Your task to perform on an android device: Go to Wikipedia Image 0: 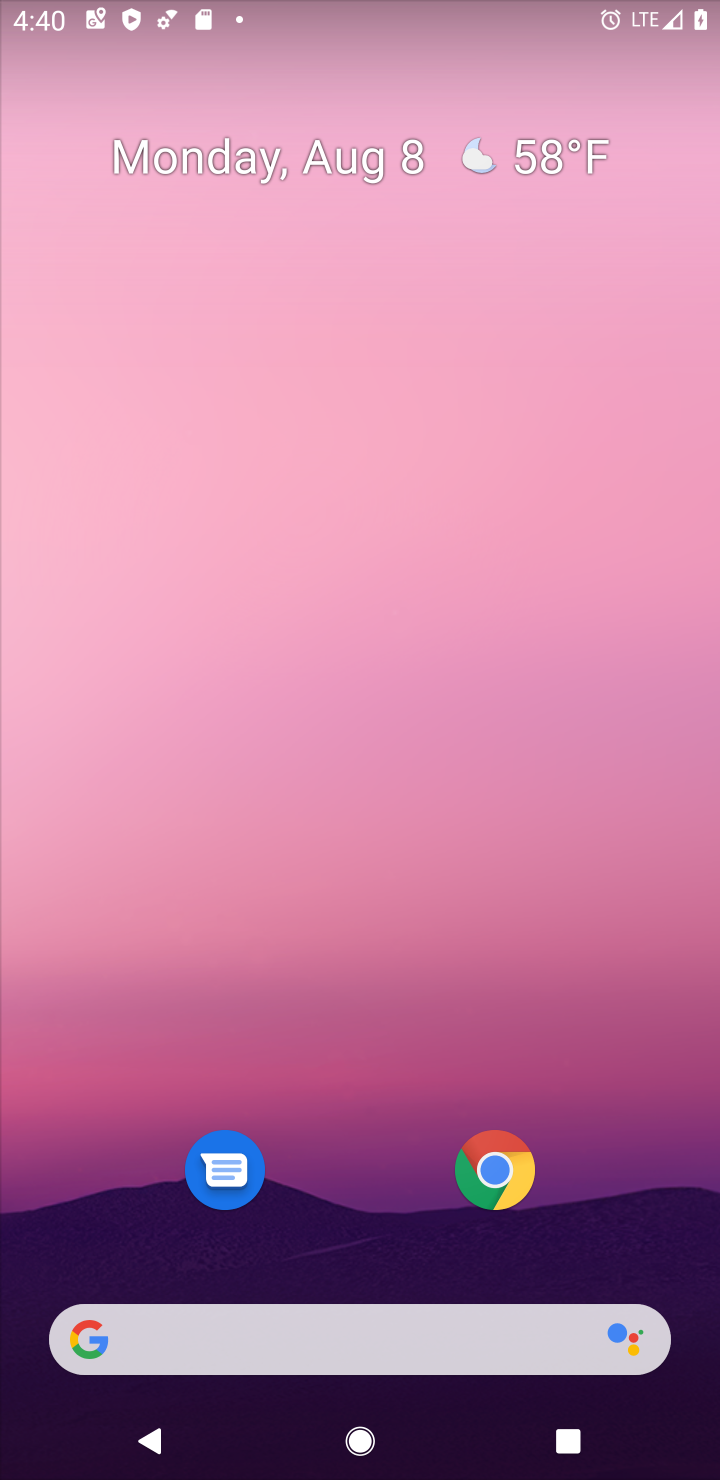
Step 0: click (481, 1220)
Your task to perform on an android device: Go to Wikipedia Image 1: 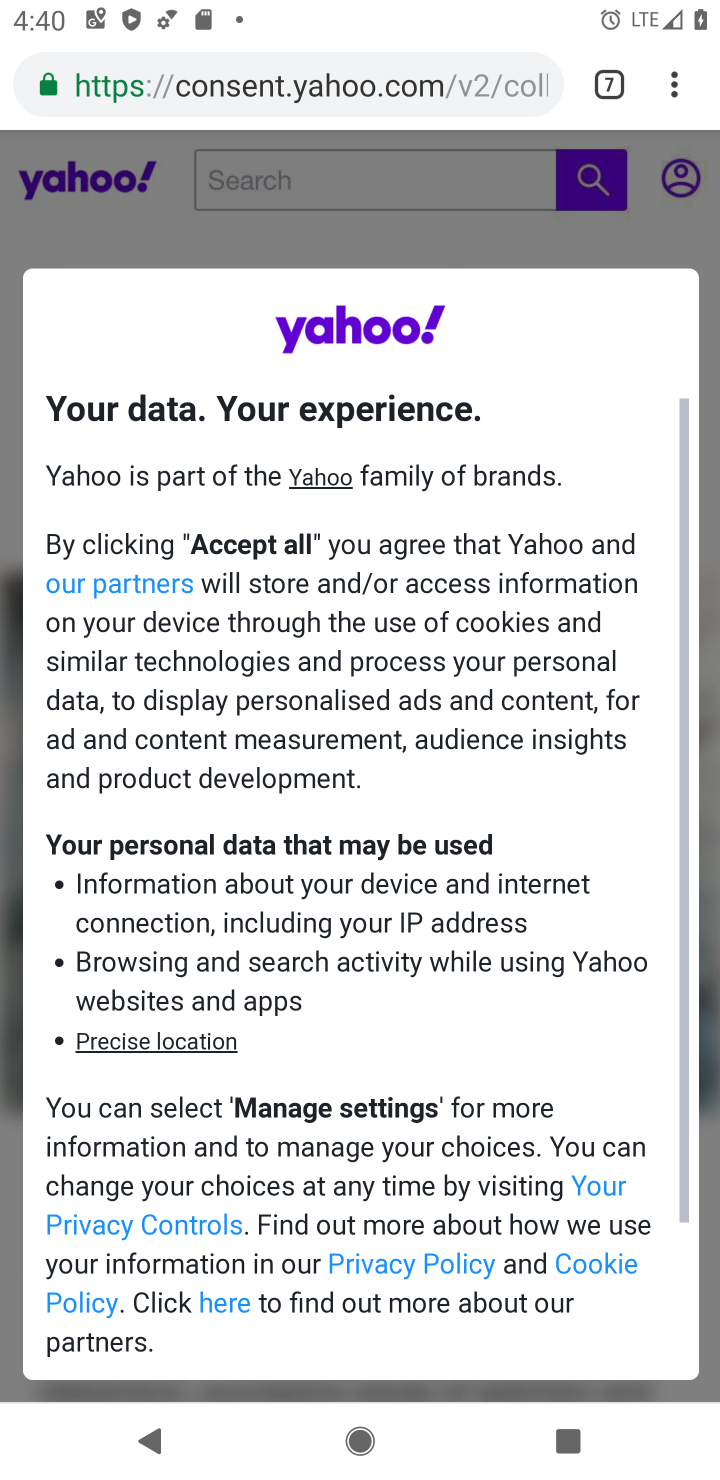
Step 1: click (608, 94)
Your task to perform on an android device: Go to Wikipedia Image 2: 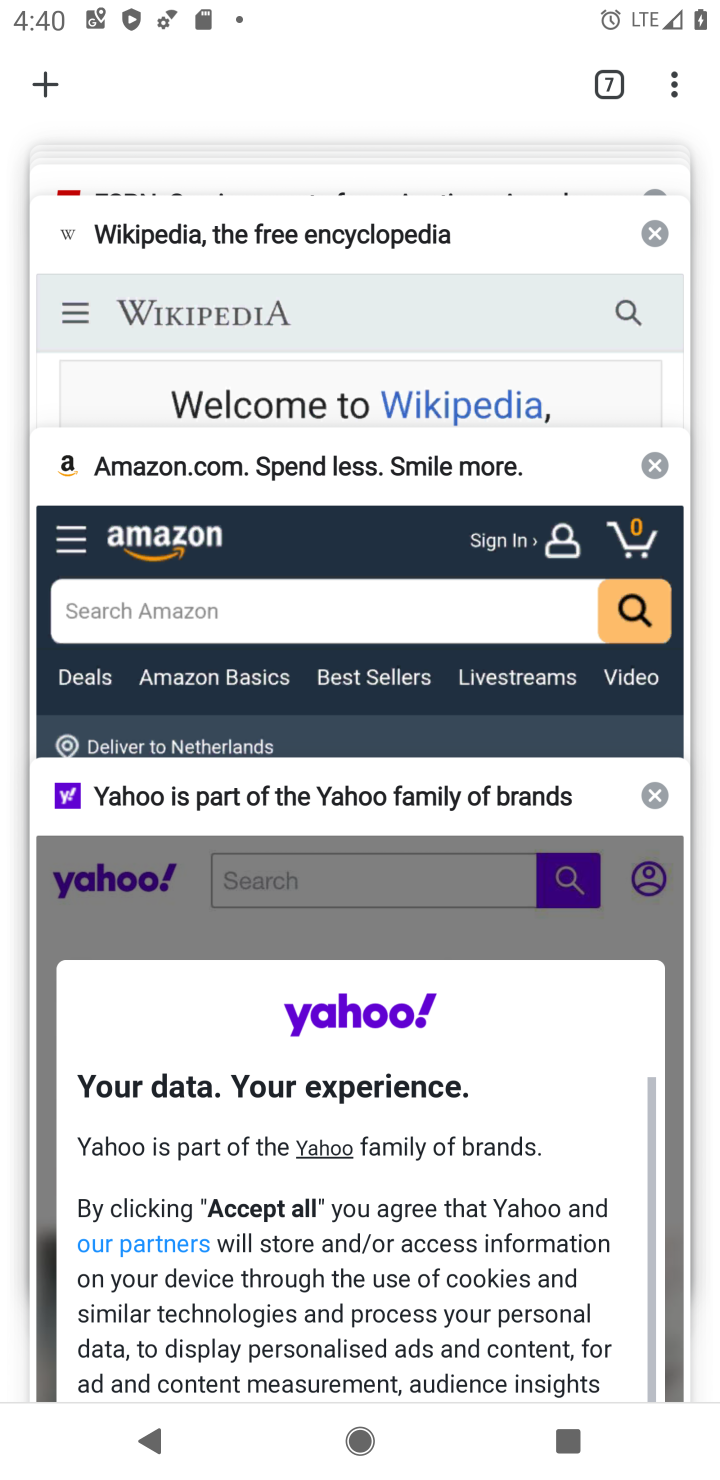
Step 2: click (178, 391)
Your task to perform on an android device: Go to Wikipedia Image 3: 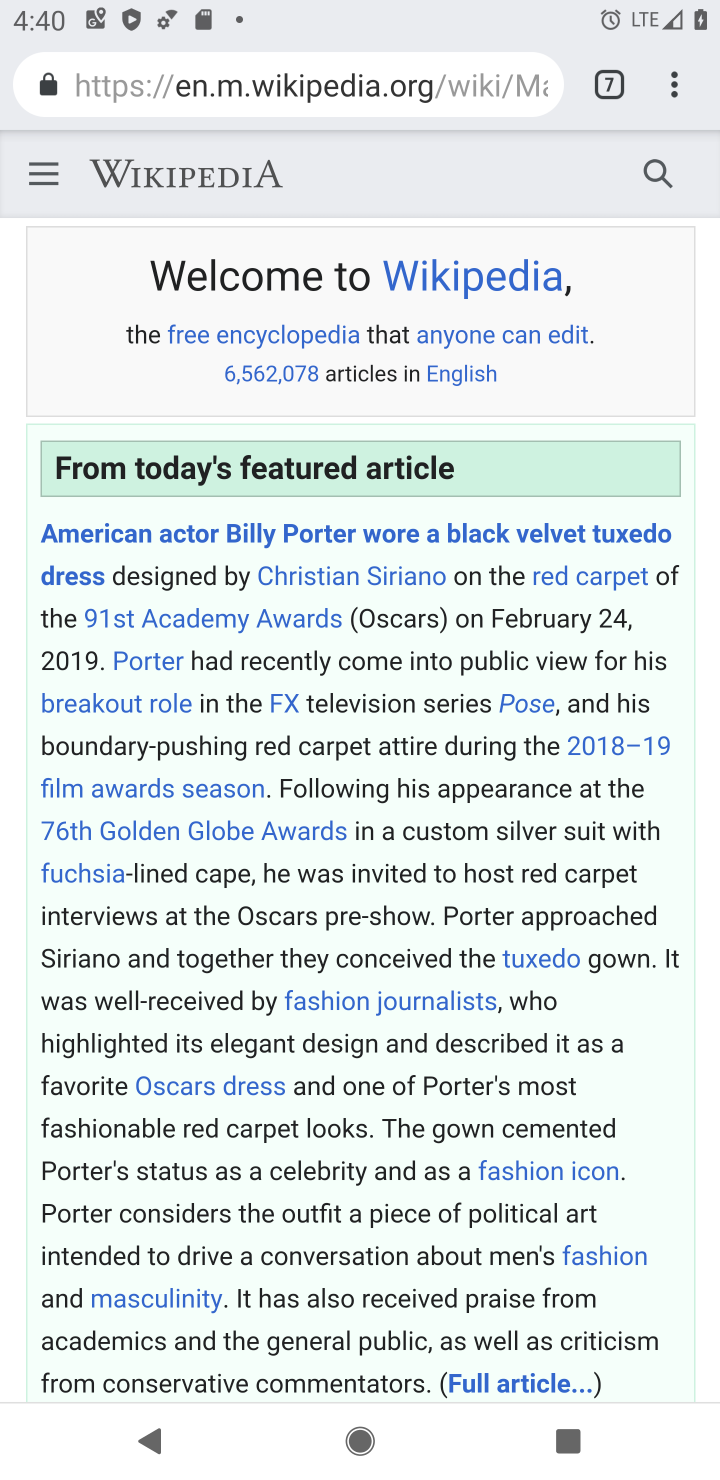
Step 3: task complete